Your task to perform on an android device: toggle improve location accuracy Image 0: 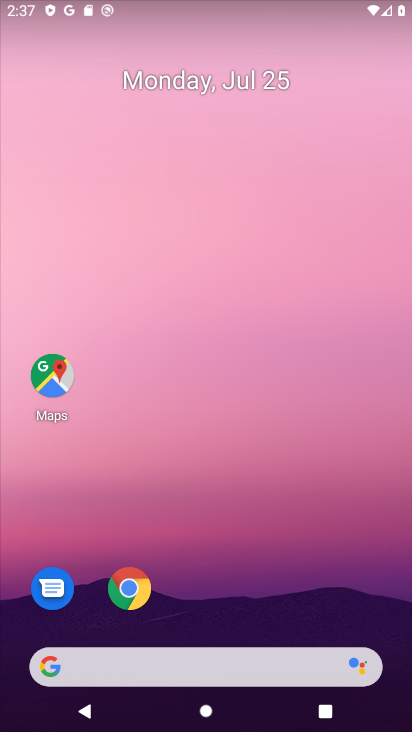
Step 0: press home button
Your task to perform on an android device: toggle improve location accuracy Image 1: 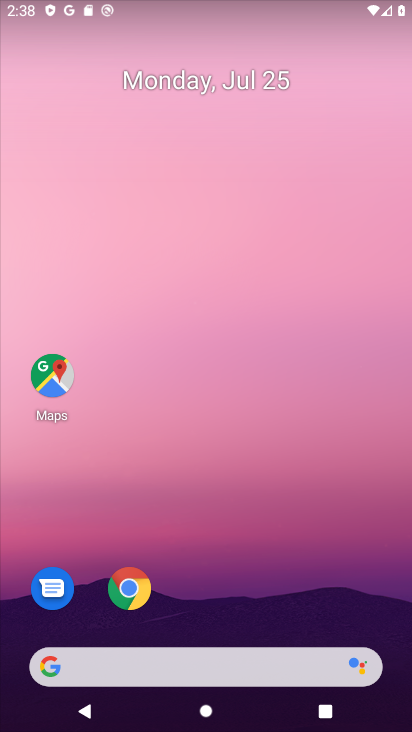
Step 1: drag from (207, 13) to (264, 481)
Your task to perform on an android device: toggle improve location accuracy Image 2: 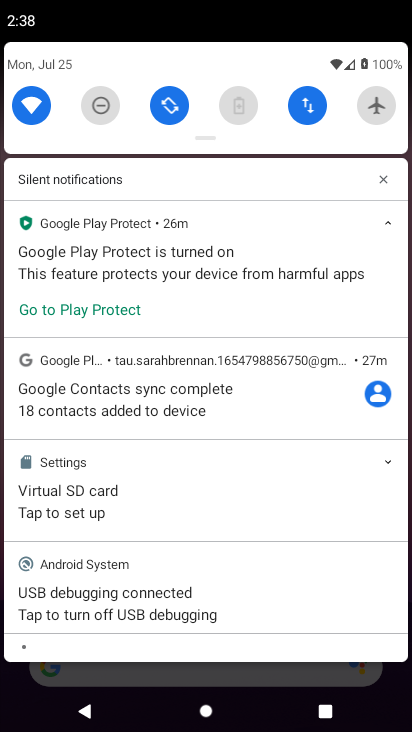
Step 2: press home button
Your task to perform on an android device: toggle improve location accuracy Image 3: 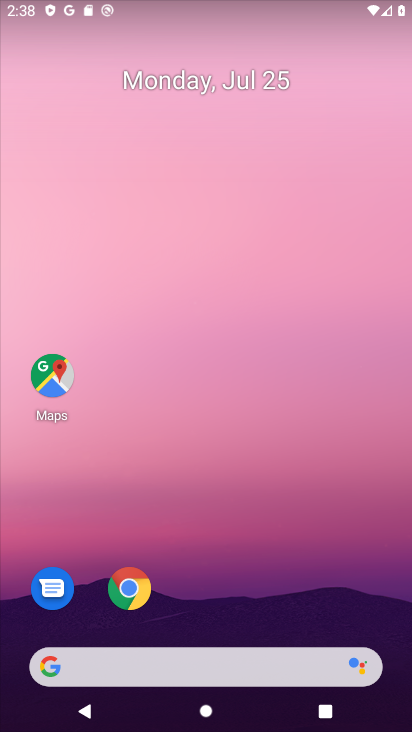
Step 3: drag from (215, 621) to (215, 90)
Your task to perform on an android device: toggle improve location accuracy Image 4: 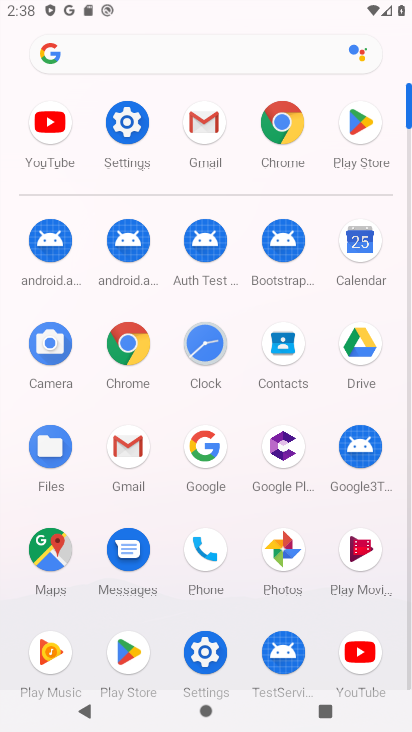
Step 4: click (126, 113)
Your task to perform on an android device: toggle improve location accuracy Image 5: 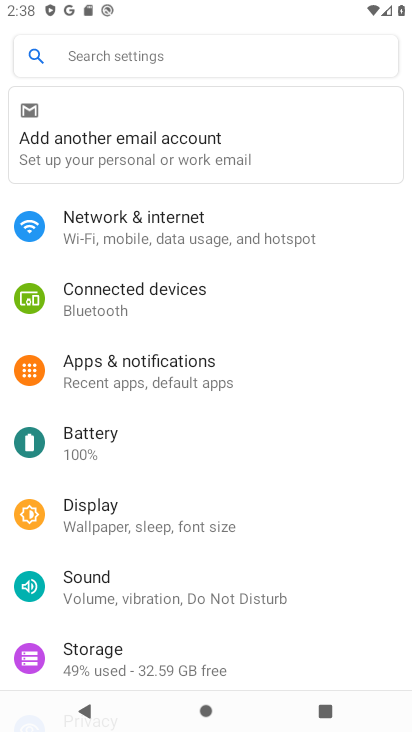
Step 5: drag from (159, 636) to (201, 112)
Your task to perform on an android device: toggle improve location accuracy Image 6: 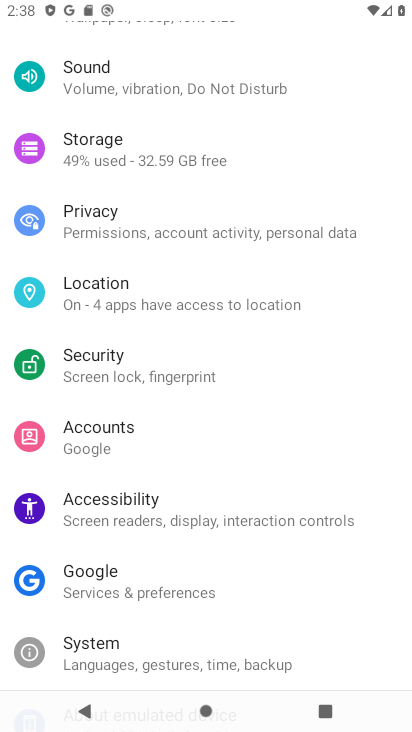
Step 6: click (148, 280)
Your task to perform on an android device: toggle improve location accuracy Image 7: 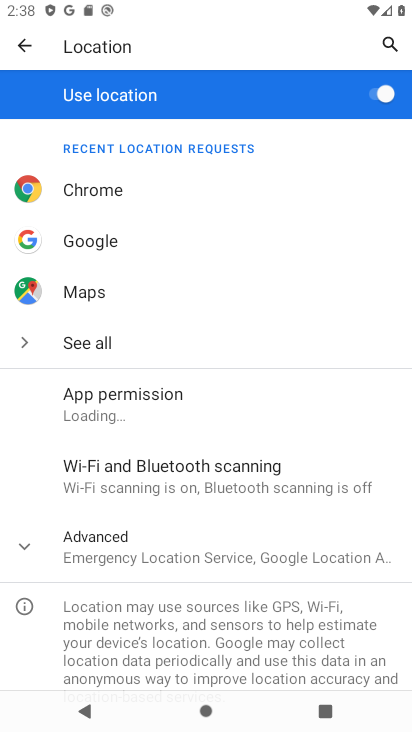
Step 7: click (32, 541)
Your task to perform on an android device: toggle improve location accuracy Image 8: 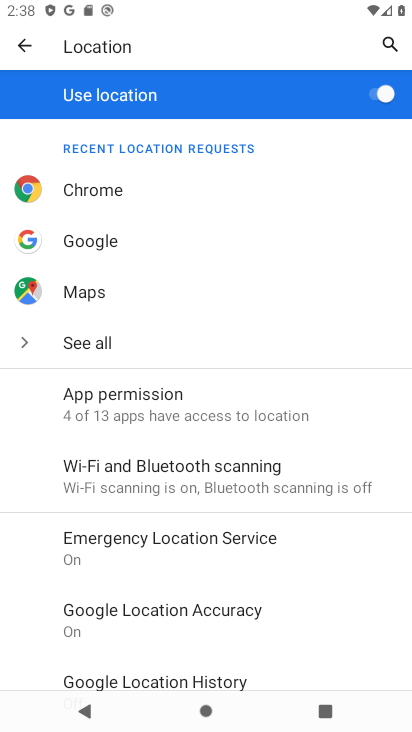
Step 8: click (116, 620)
Your task to perform on an android device: toggle improve location accuracy Image 9: 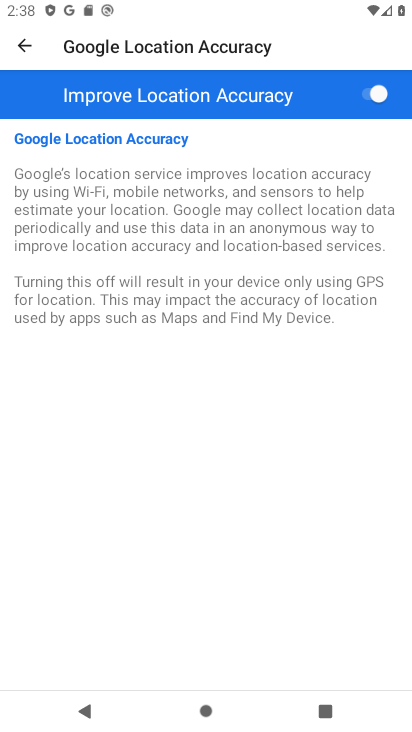
Step 9: click (361, 88)
Your task to perform on an android device: toggle improve location accuracy Image 10: 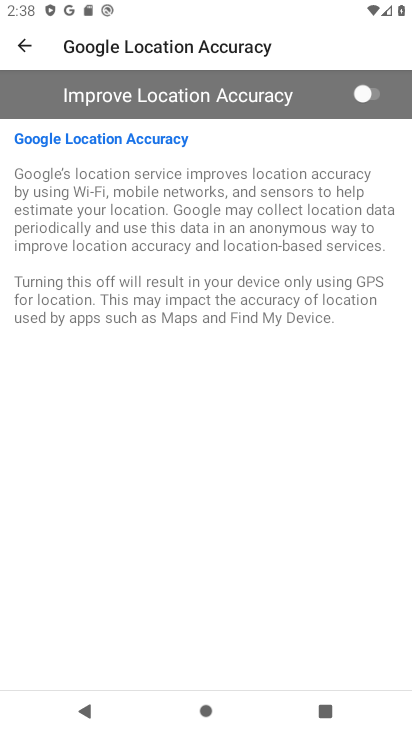
Step 10: task complete